Your task to perform on an android device: change the clock style Image 0: 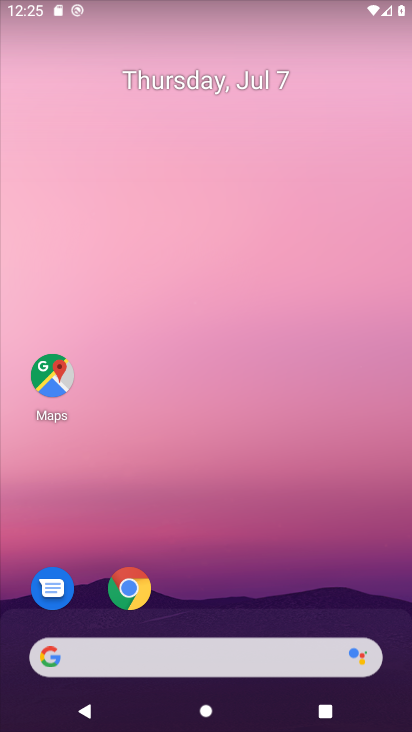
Step 0: drag from (315, 624) to (267, 121)
Your task to perform on an android device: change the clock style Image 1: 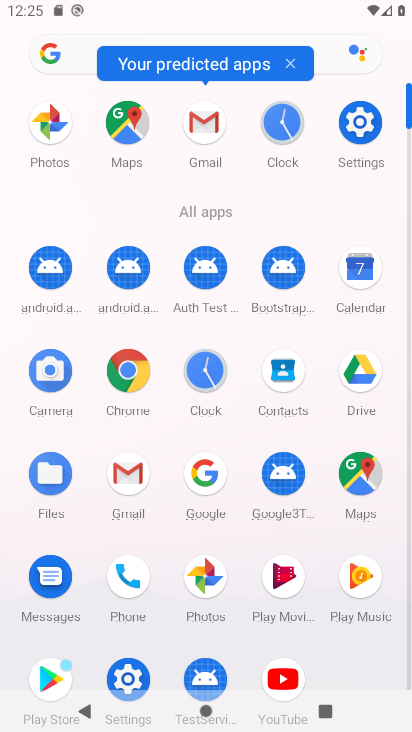
Step 1: click (202, 380)
Your task to perform on an android device: change the clock style Image 2: 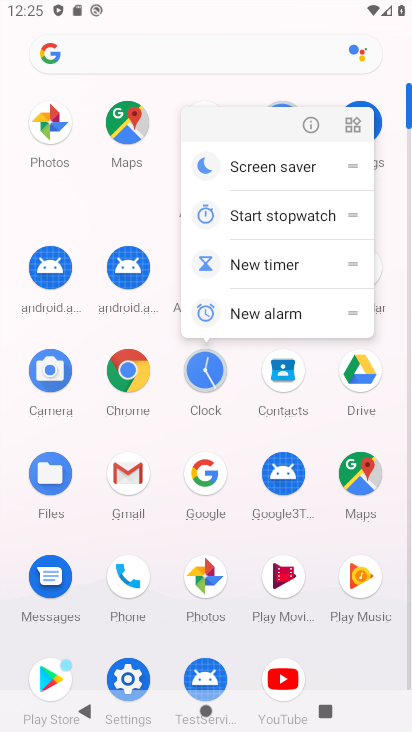
Step 2: click (202, 380)
Your task to perform on an android device: change the clock style Image 3: 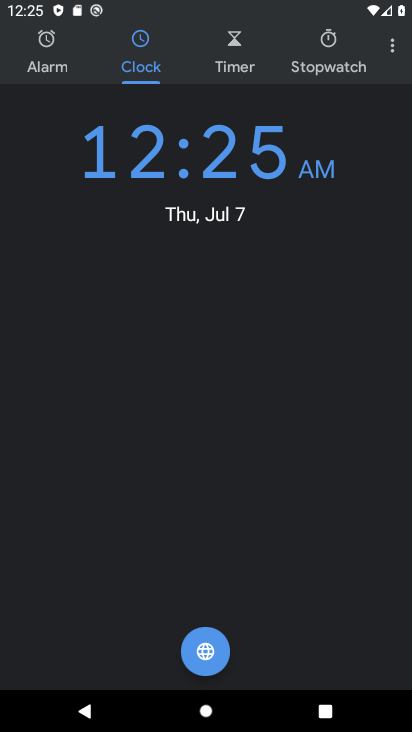
Step 3: click (376, 48)
Your task to perform on an android device: change the clock style Image 4: 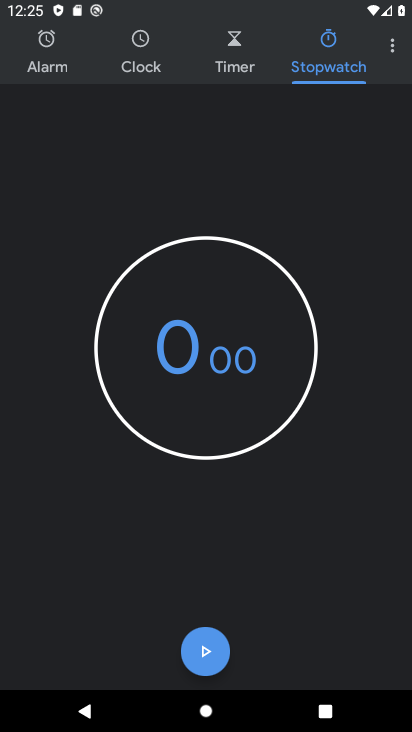
Step 4: click (386, 42)
Your task to perform on an android device: change the clock style Image 5: 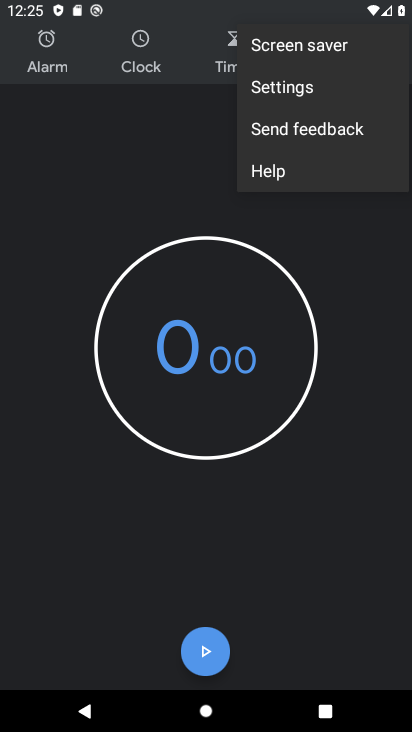
Step 5: click (330, 96)
Your task to perform on an android device: change the clock style Image 6: 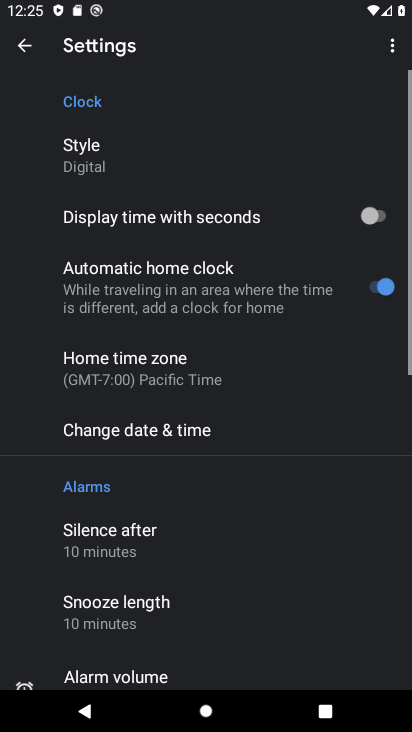
Step 6: drag from (239, 594) to (264, 161)
Your task to perform on an android device: change the clock style Image 7: 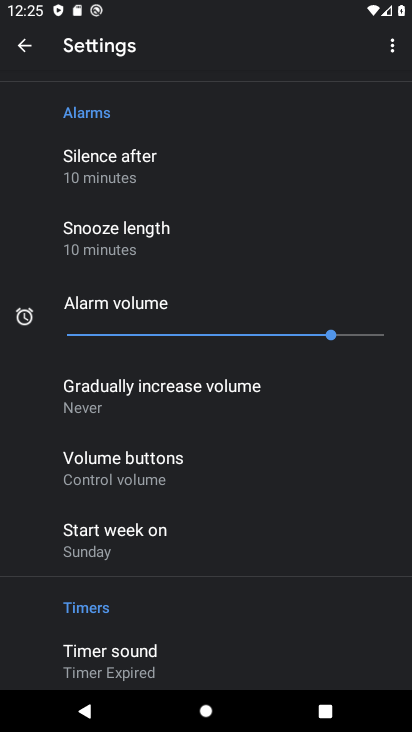
Step 7: drag from (233, 623) to (247, 252)
Your task to perform on an android device: change the clock style Image 8: 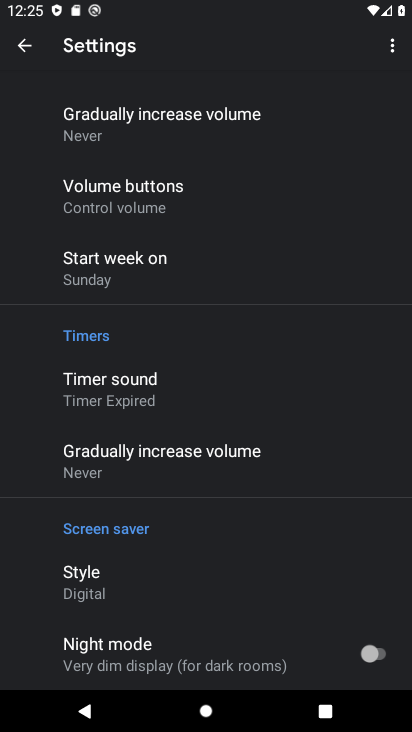
Step 8: click (139, 572)
Your task to perform on an android device: change the clock style Image 9: 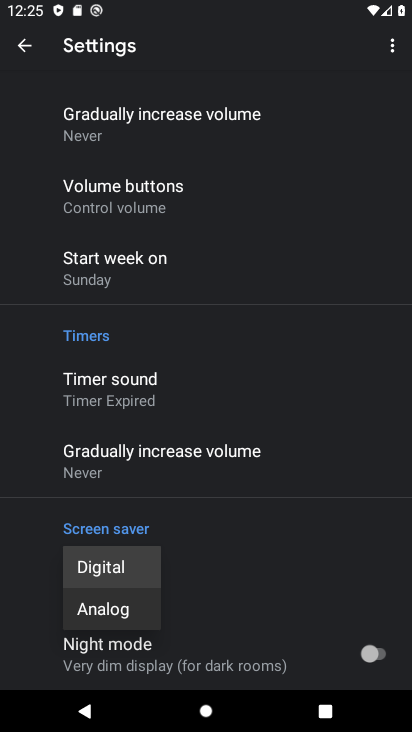
Step 9: click (136, 612)
Your task to perform on an android device: change the clock style Image 10: 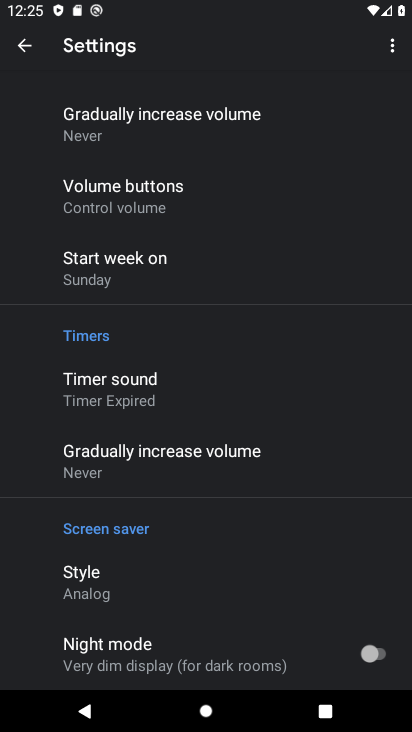
Step 10: task complete